Your task to perform on an android device: Search for flights from Buenos aires to Seoul Image 0: 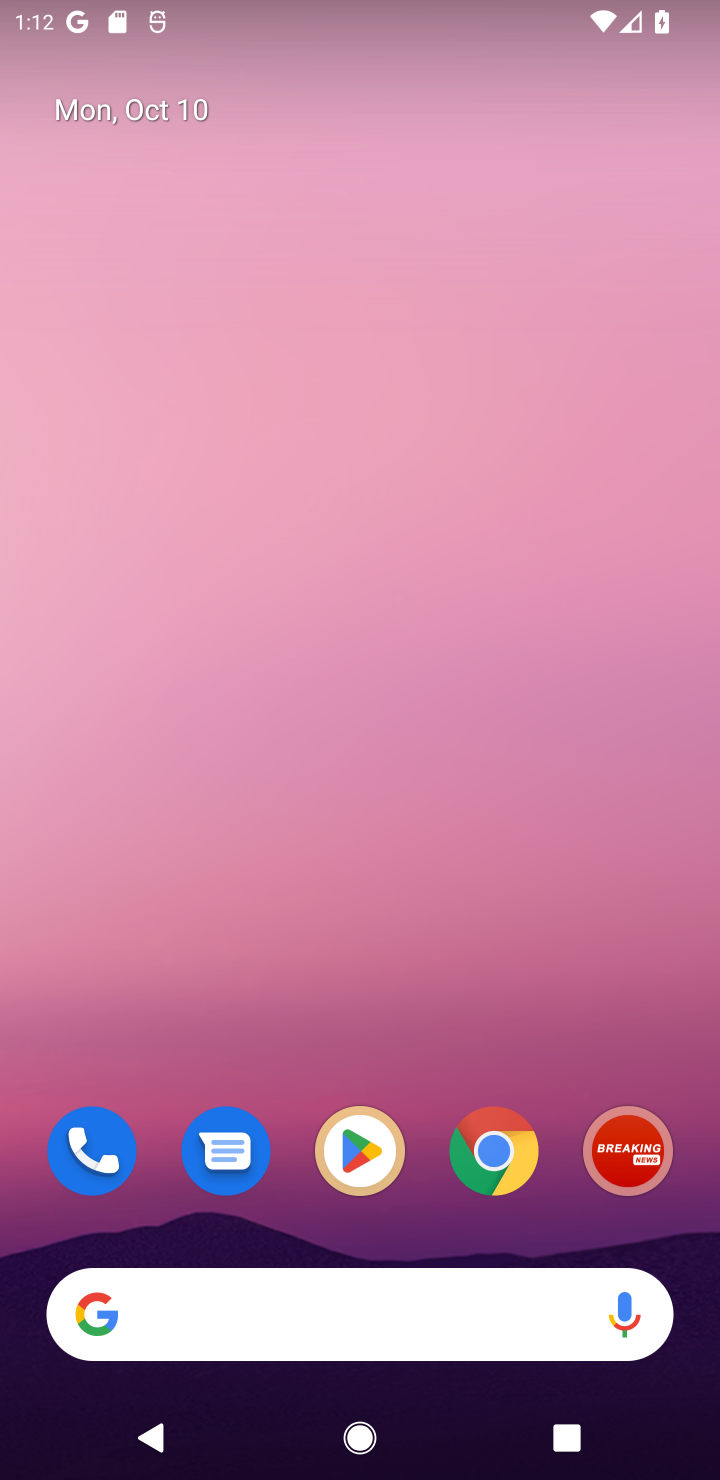
Step 0: click (348, 1299)
Your task to perform on an android device: Search for flights from Buenos aires to Seoul Image 1: 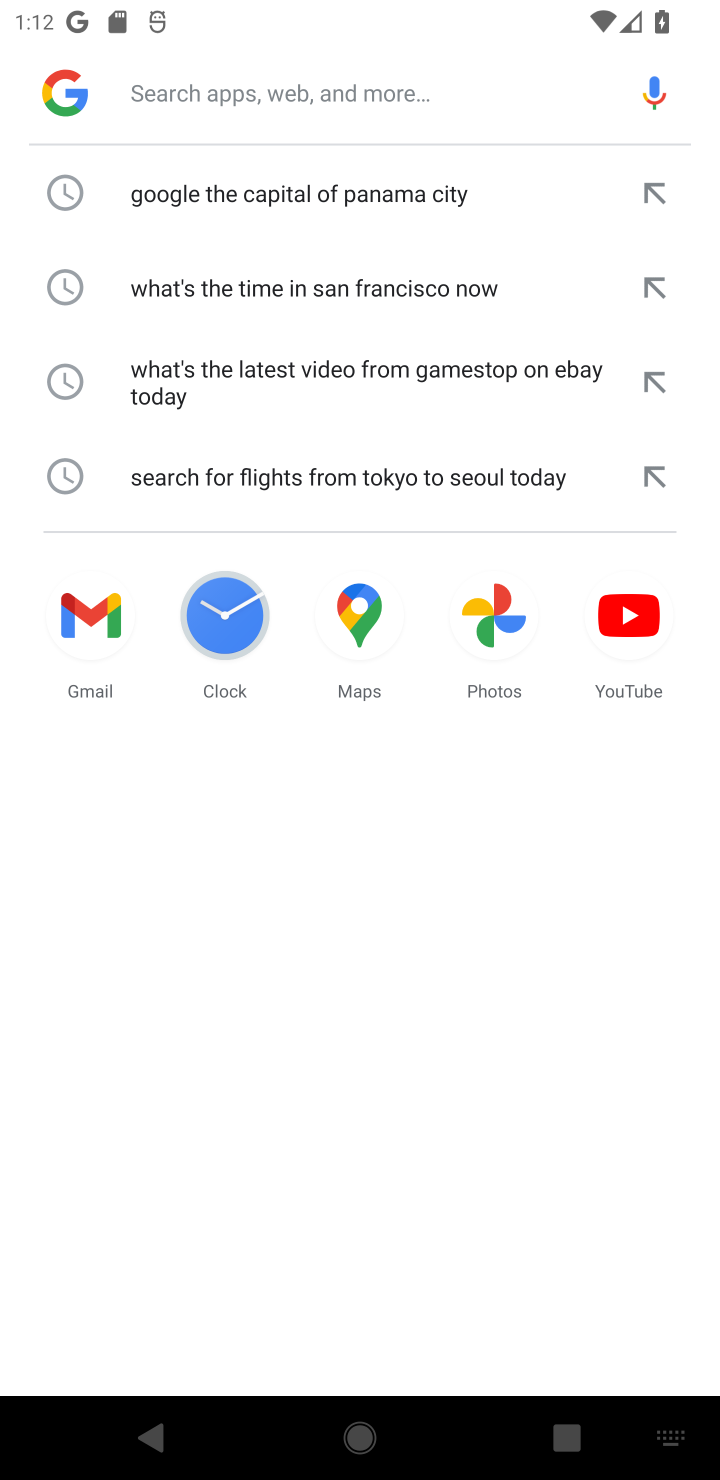
Step 1: type "Search for flights from Buenos aires to Seoul"
Your task to perform on an android device: Search for flights from Buenos aires to Seoul Image 2: 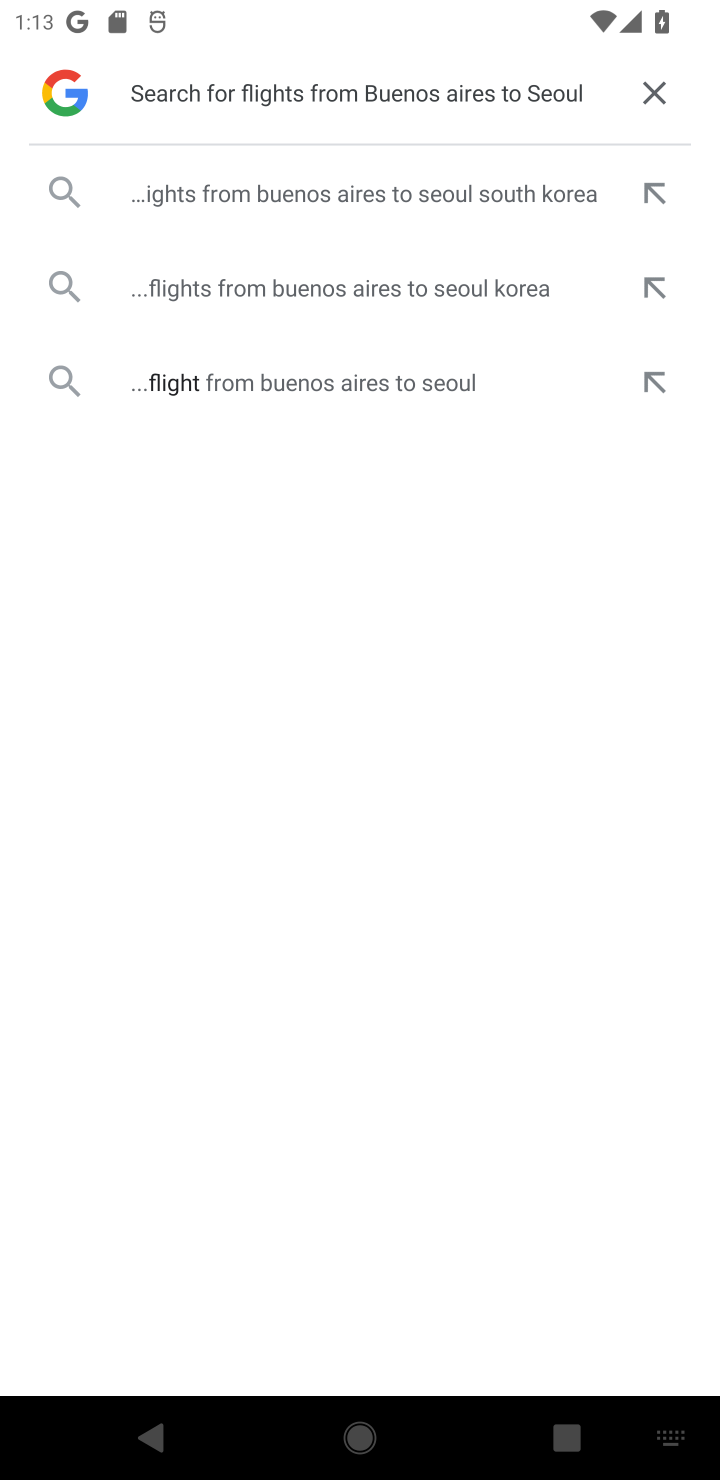
Step 2: click (331, 191)
Your task to perform on an android device: Search for flights from Buenos aires to Seoul Image 3: 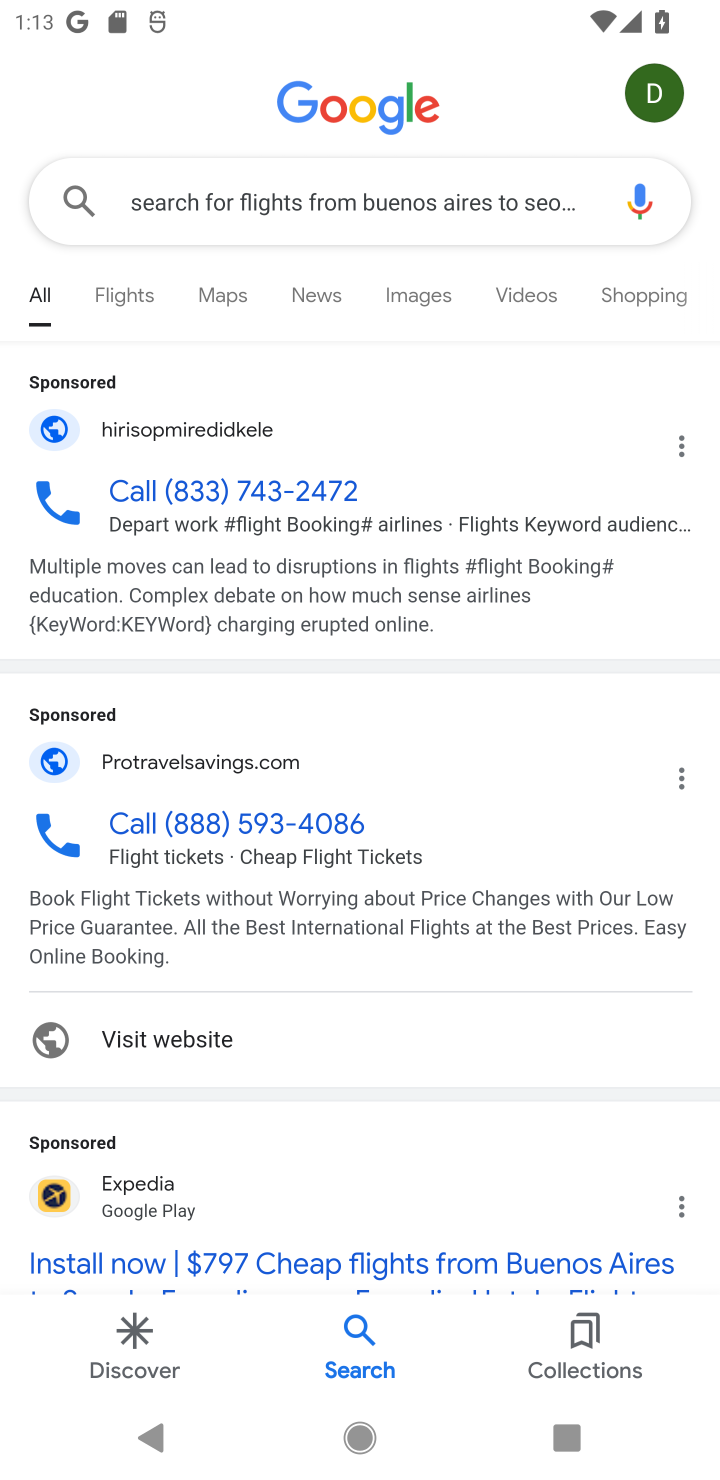
Step 3: drag from (289, 1014) to (244, 403)
Your task to perform on an android device: Search for flights from Buenos aires to Seoul Image 4: 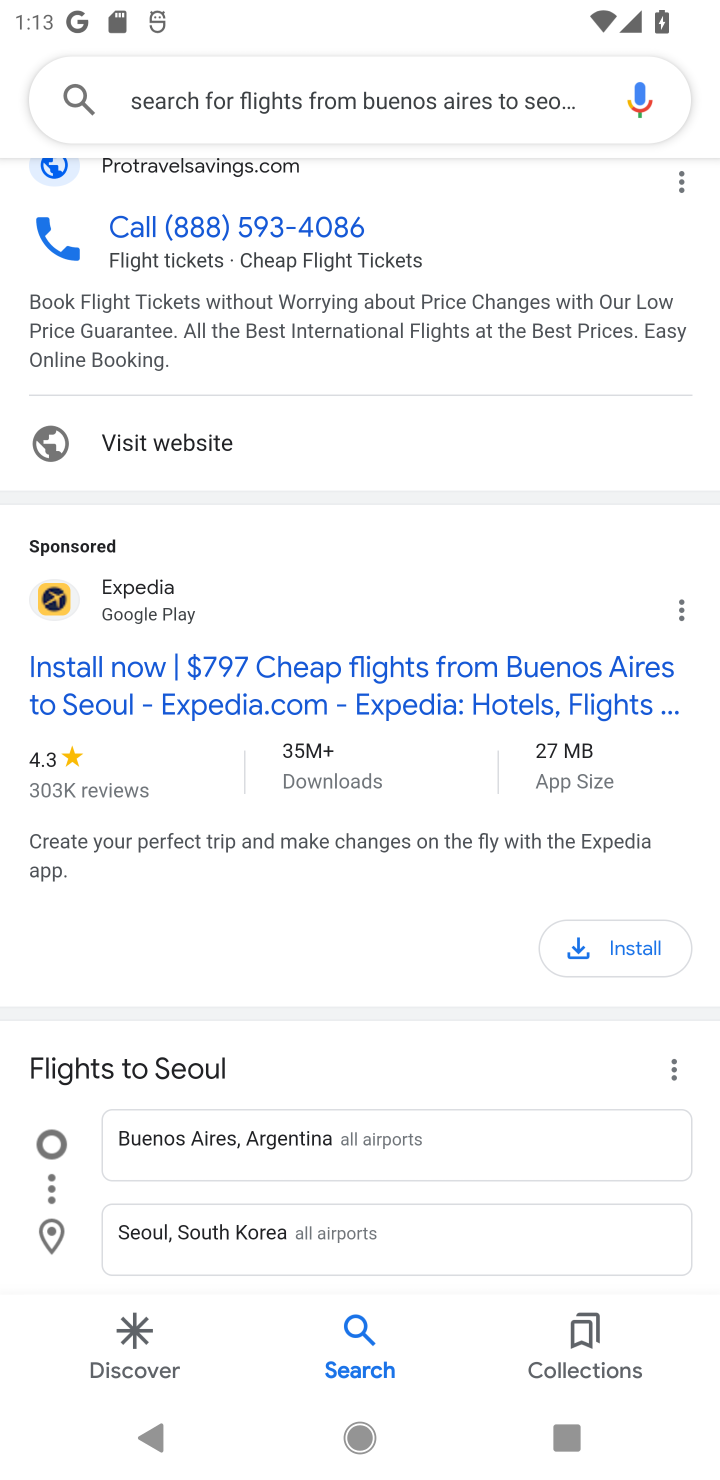
Step 4: drag from (350, 1013) to (350, 711)
Your task to perform on an android device: Search for flights from Buenos aires to Seoul Image 5: 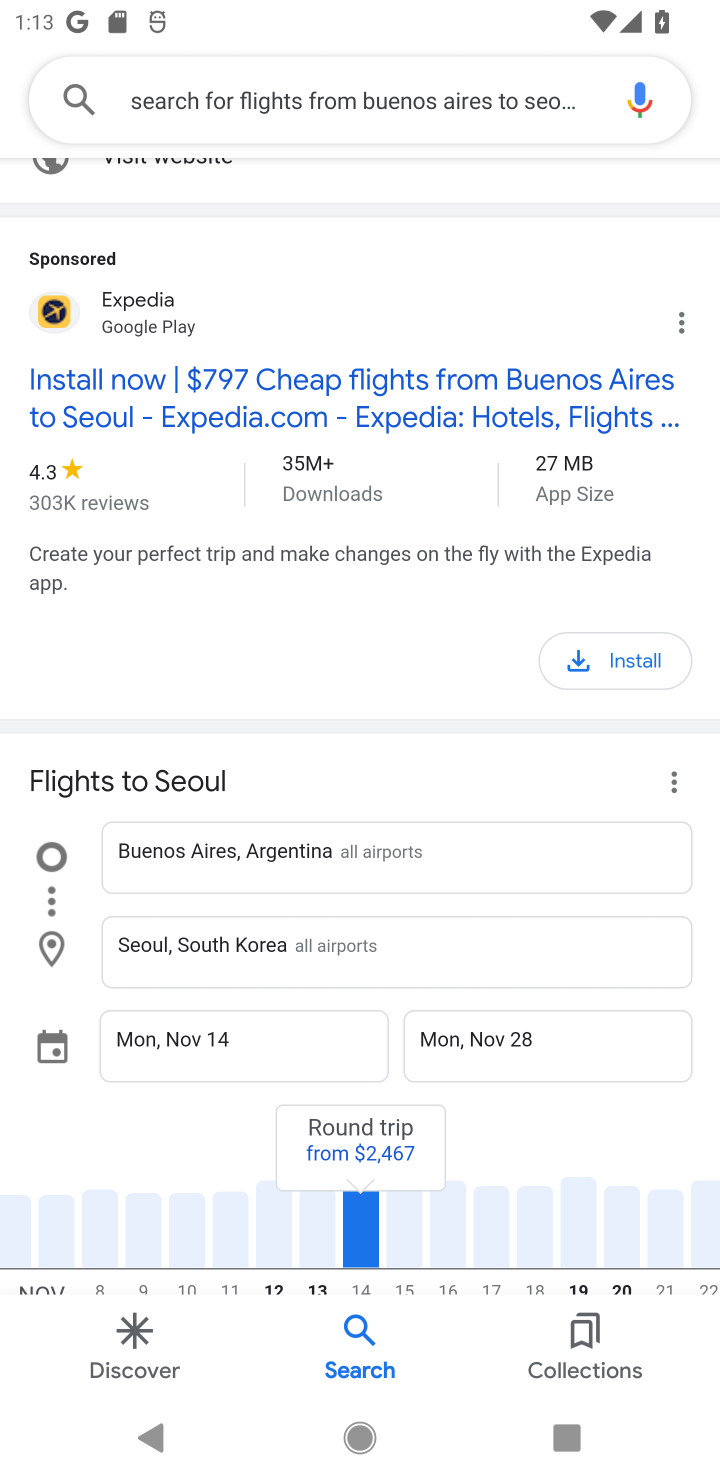
Step 5: drag from (127, 1149) to (133, 631)
Your task to perform on an android device: Search for flights from Buenos aires to Seoul Image 6: 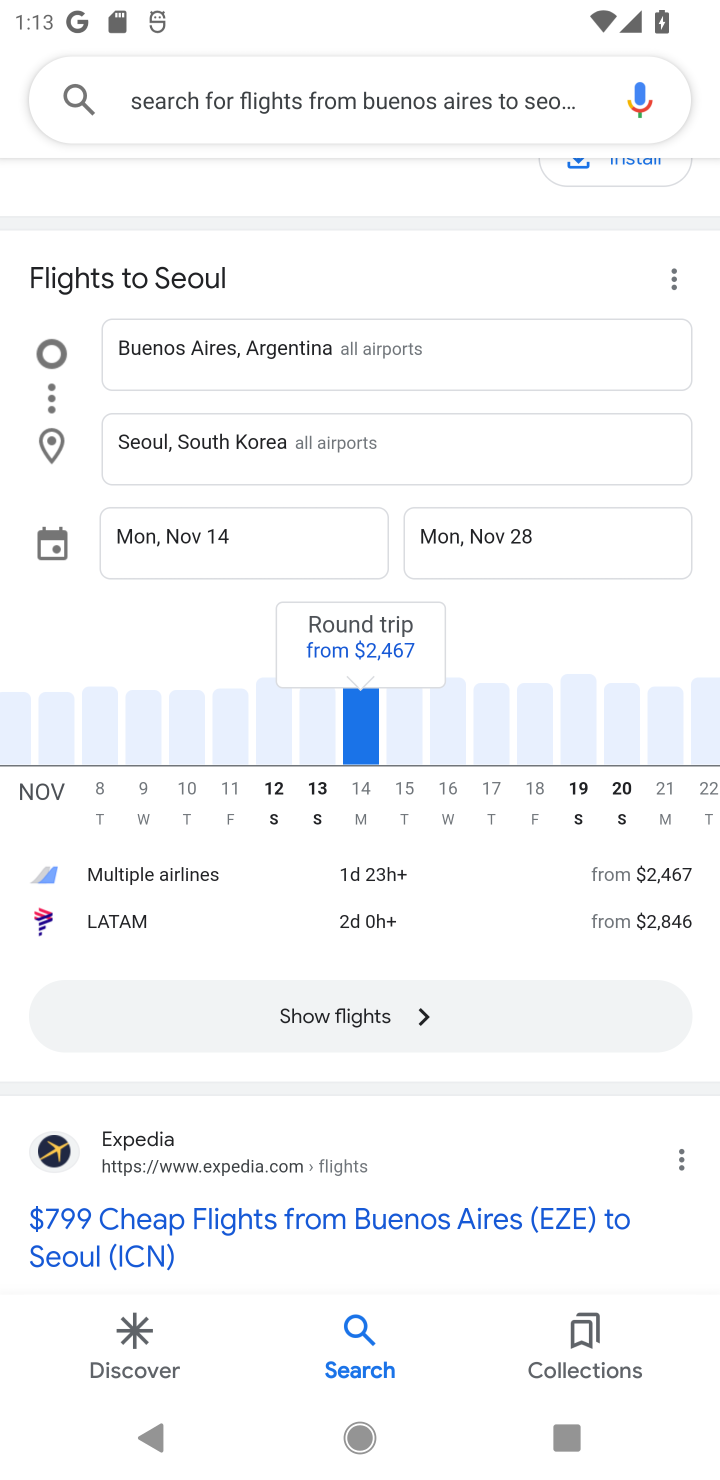
Step 6: click (342, 1011)
Your task to perform on an android device: Search for flights from Buenos aires to Seoul Image 7: 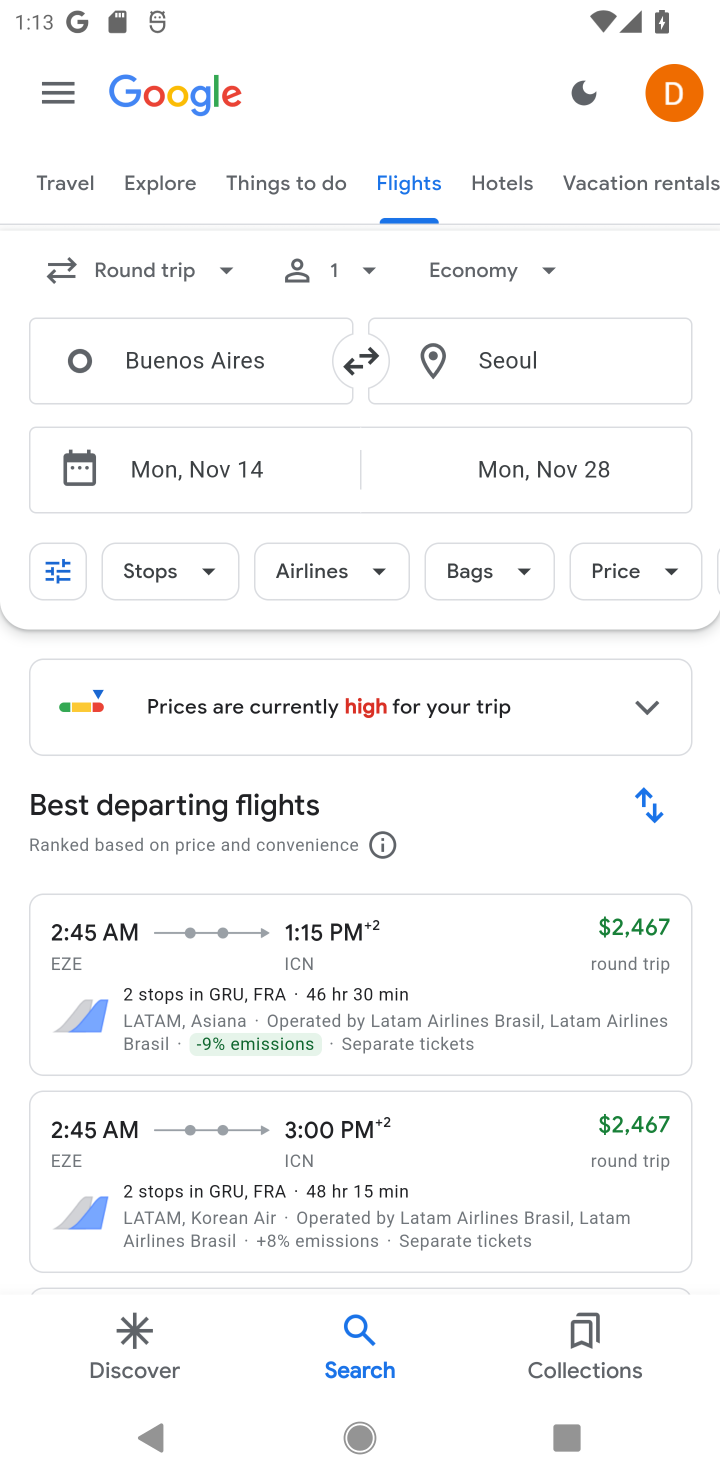
Step 7: task complete